Your task to perform on an android device: check the backup settings in the google photos Image 0: 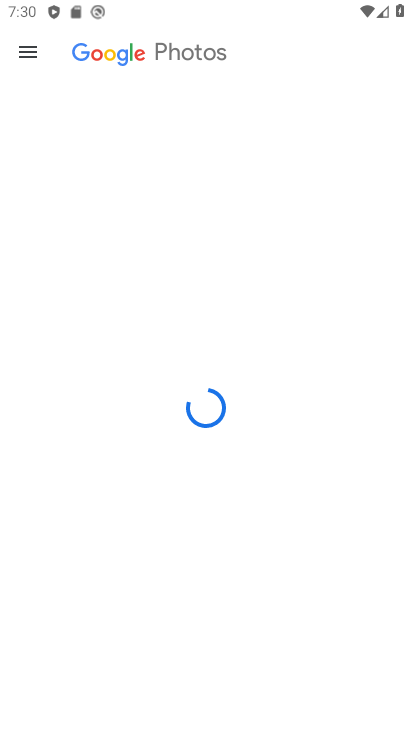
Step 0: press home button
Your task to perform on an android device: check the backup settings in the google photos Image 1: 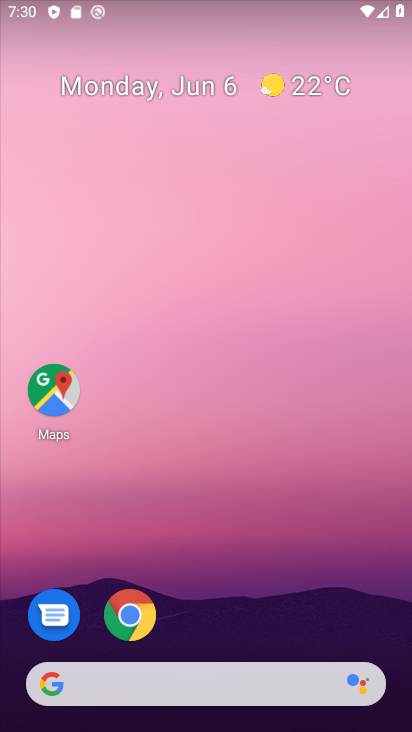
Step 1: drag from (390, 655) to (336, 56)
Your task to perform on an android device: check the backup settings in the google photos Image 2: 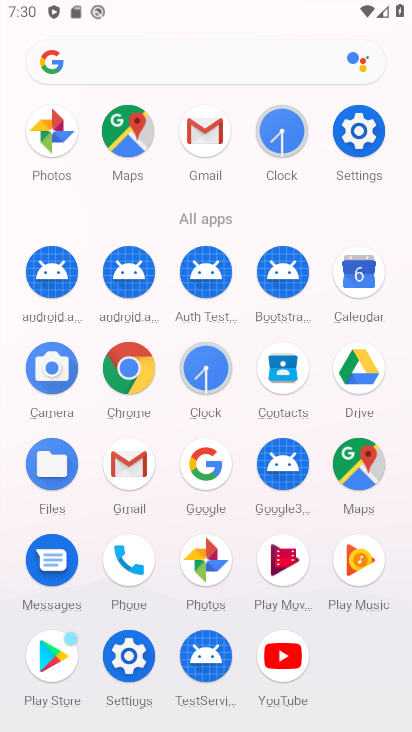
Step 2: click (203, 549)
Your task to perform on an android device: check the backup settings in the google photos Image 3: 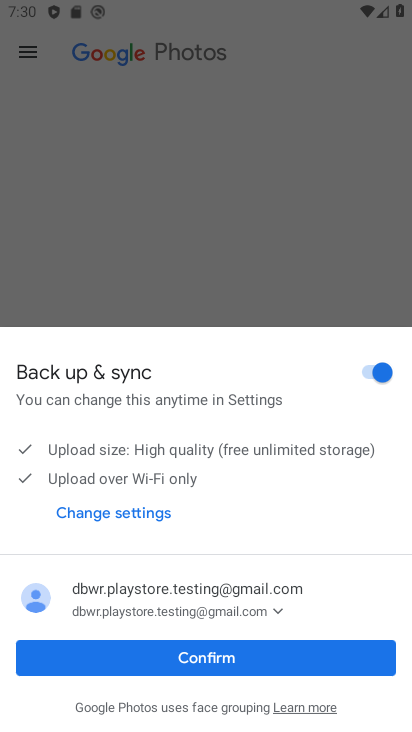
Step 3: click (218, 648)
Your task to perform on an android device: check the backup settings in the google photos Image 4: 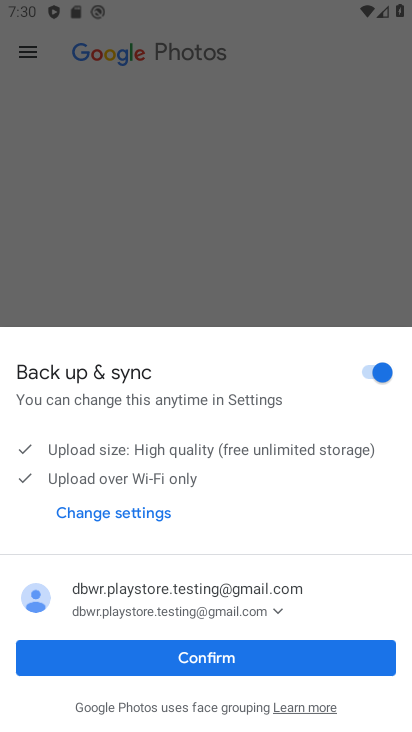
Step 4: click (218, 648)
Your task to perform on an android device: check the backup settings in the google photos Image 5: 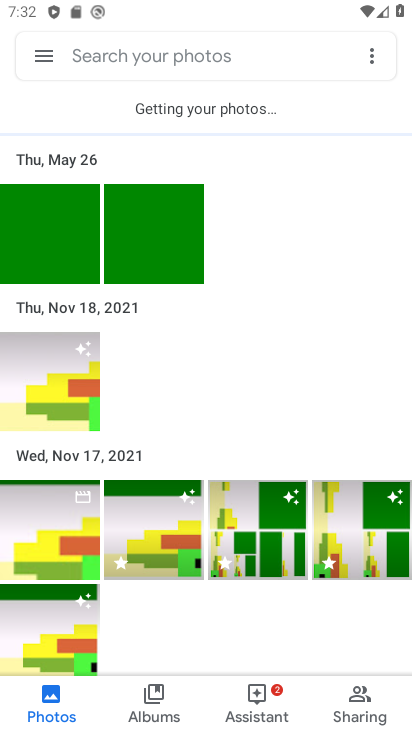
Step 5: click (45, 56)
Your task to perform on an android device: check the backup settings in the google photos Image 6: 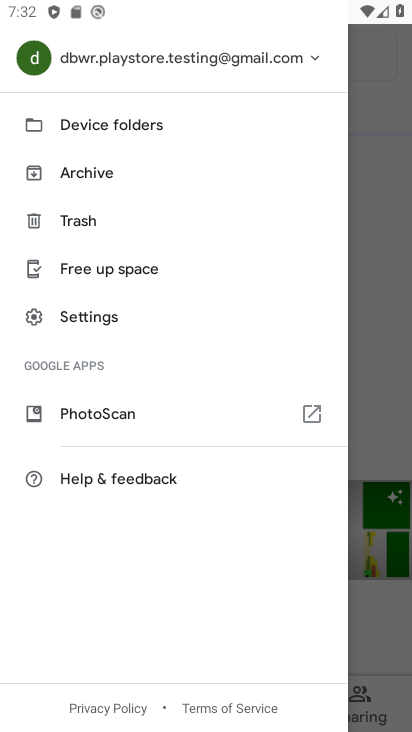
Step 6: click (83, 307)
Your task to perform on an android device: check the backup settings in the google photos Image 7: 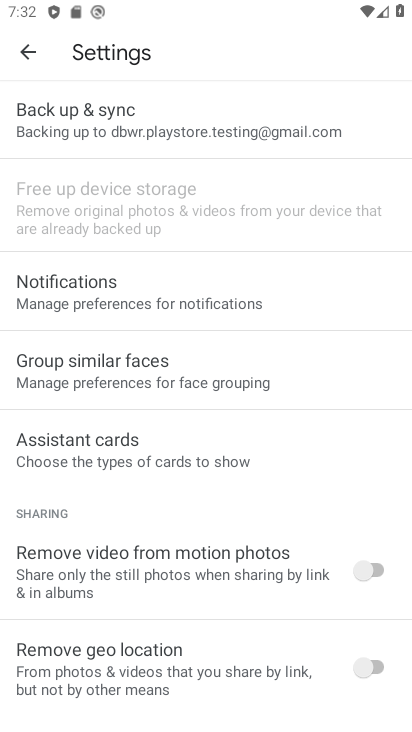
Step 7: click (106, 123)
Your task to perform on an android device: check the backup settings in the google photos Image 8: 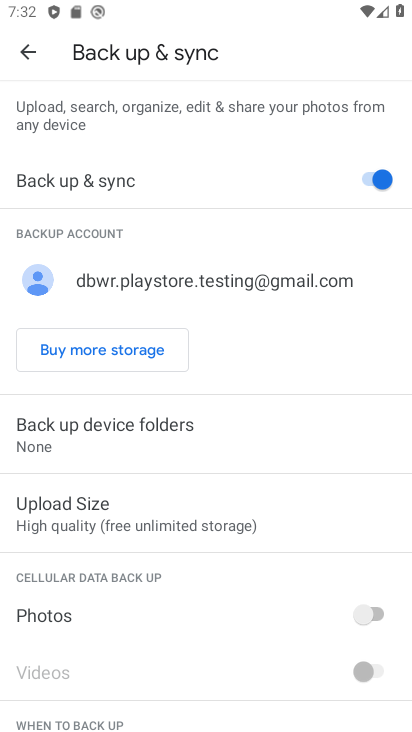
Step 8: task complete